Your task to perform on an android device: Do I have any events today? Image 0: 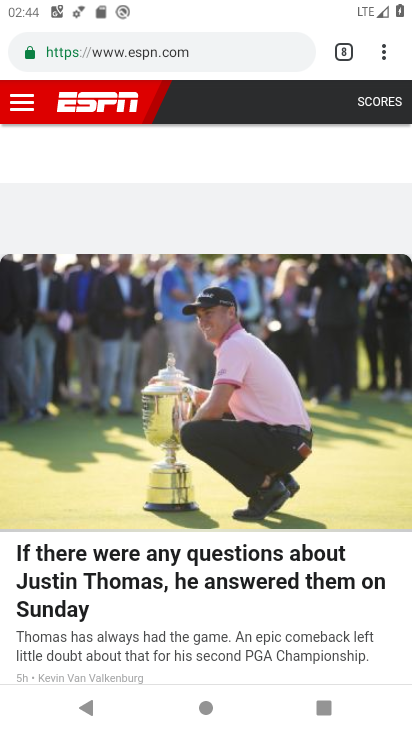
Step 0: press home button
Your task to perform on an android device: Do I have any events today? Image 1: 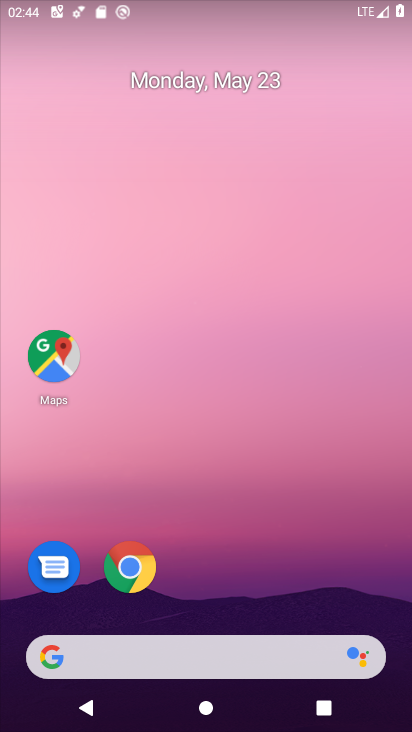
Step 1: drag from (319, 577) to (284, 198)
Your task to perform on an android device: Do I have any events today? Image 2: 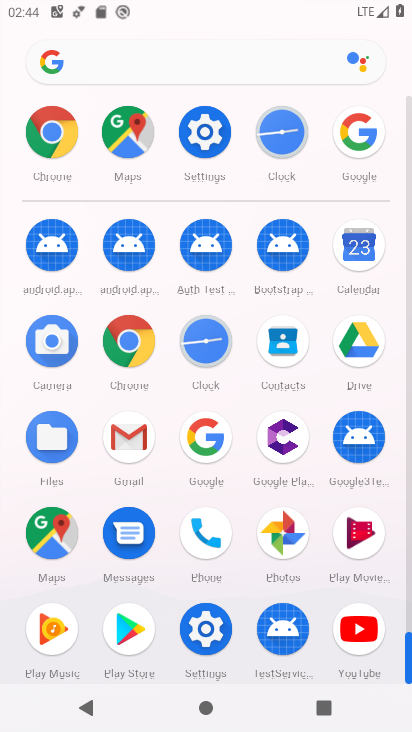
Step 2: click (345, 253)
Your task to perform on an android device: Do I have any events today? Image 3: 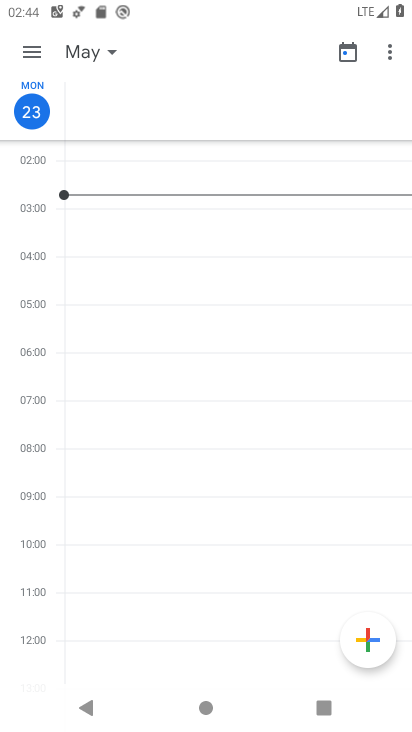
Step 3: click (97, 59)
Your task to perform on an android device: Do I have any events today? Image 4: 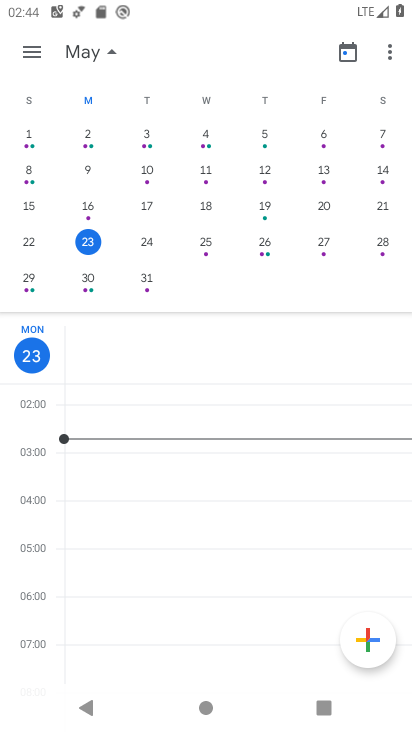
Step 4: task complete